Your task to perform on an android device: Go to network settings Image 0: 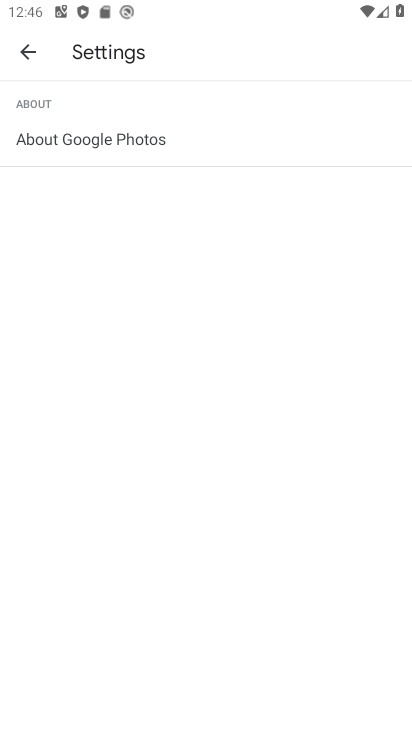
Step 0: press home button
Your task to perform on an android device: Go to network settings Image 1: 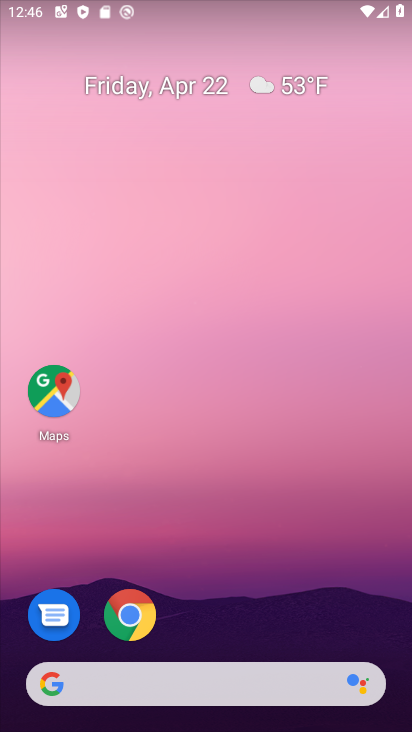
Step 1: drag from (370, 630) to (405, 162)
Your task to perform on an android device: Go to network settings Image 2: 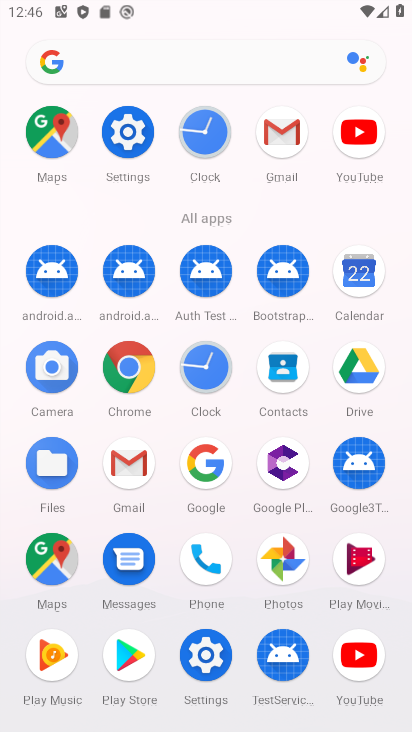
Step 2: click (132, 134)
Your task to perform on an android device: Go to network settings Image 3: 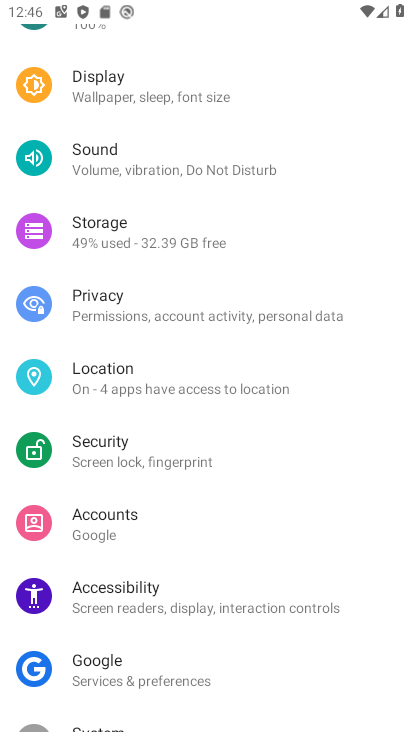
Step 3: drag from (178, 148) to (126, 558)
Your task to perform on an android device: Go to network settings Image 4: 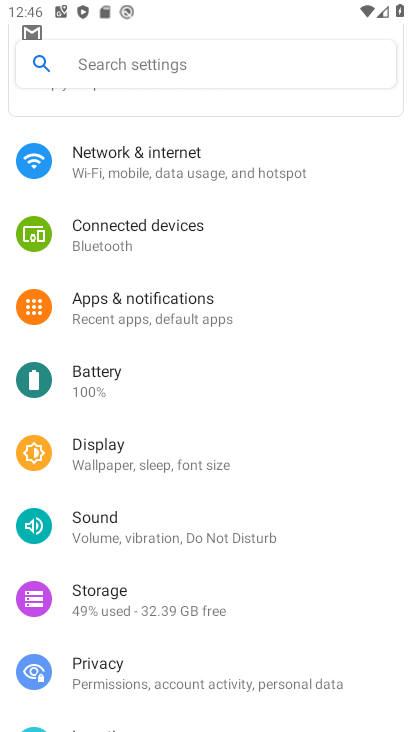
Step 4: click (141, 174)
Your task to perform on an android device: Go to network settings Image 5: 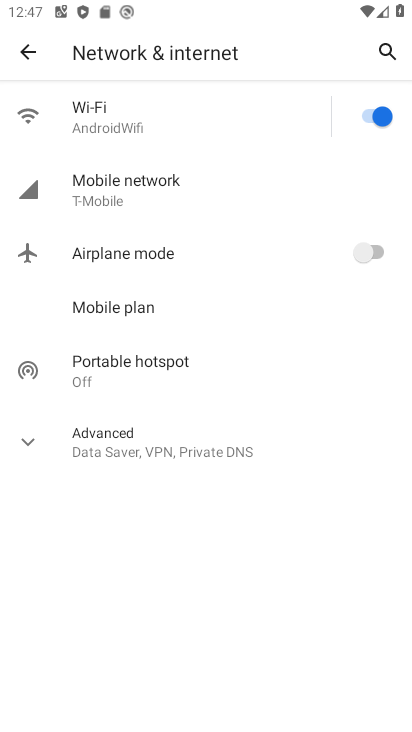
Step 5: click (101, 198)
Your task to perform on an android device: Go to network settings Image 6: 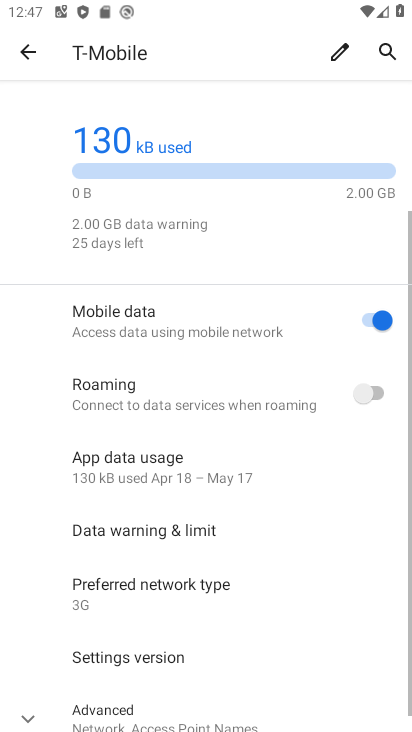
Step 6: drag from (141, 505) to (147, 199)
Your task to perform on an android device: Go to network settings Image 7: 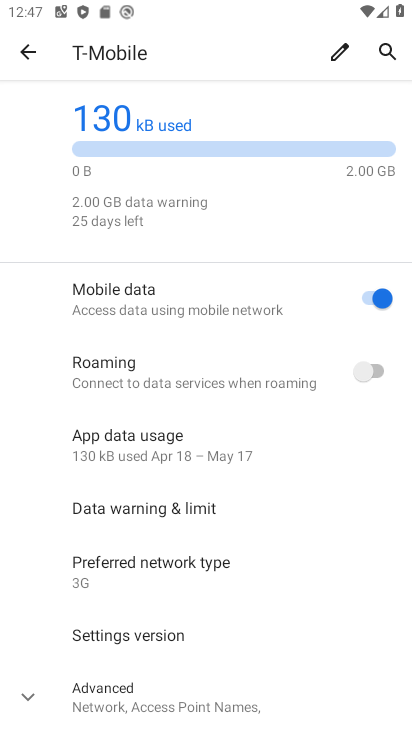
Step 7: click (24, 706)
Your task to perform on an android device: Go to network settings Image 8: 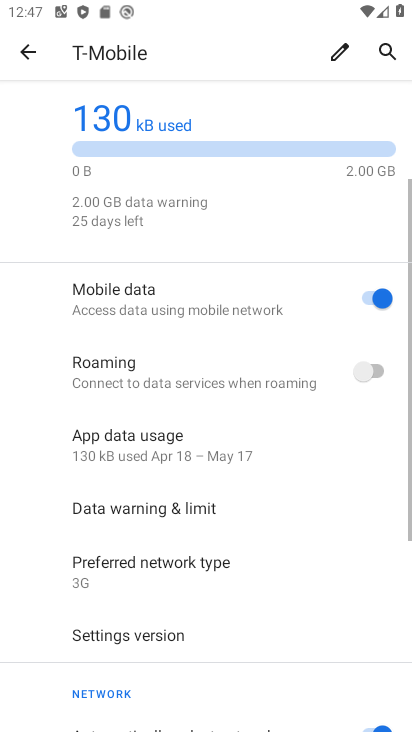
Step 8: task complete